Your task to perform on an android device: What's the weather going to be tomorrow? Image 0: 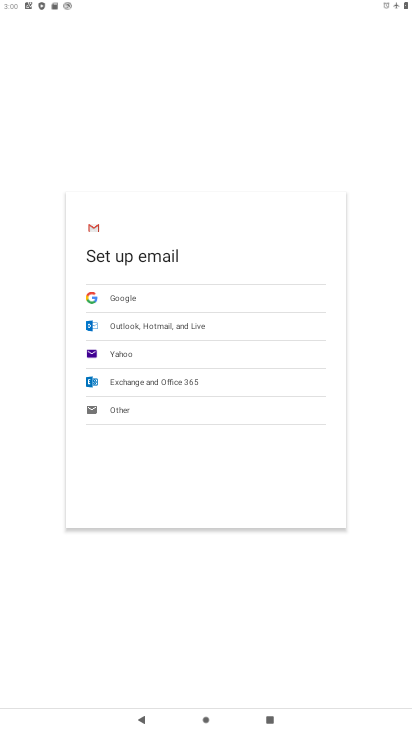
Step 0: press home button
Your task to perform on an android device: What's the weather going to be tomorrow? Image 1: 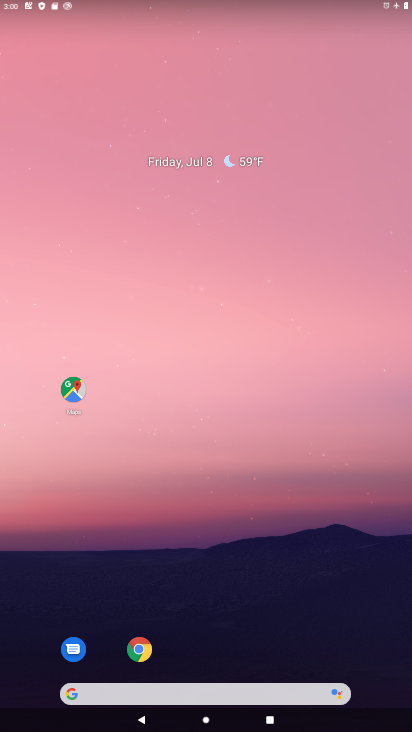
Step 1: drag from (313, 627) to (297, 575)
Your task to perform on an android device: What's the weather going to be tomorrow? Image 2: 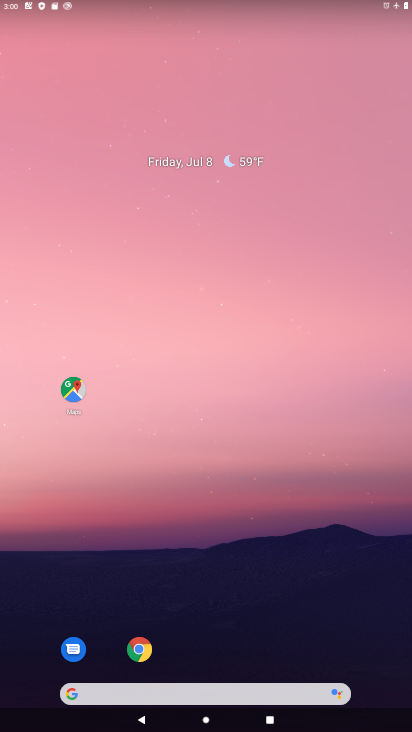
Step 2: click (249, 157)
Your task to perform on an android device: What's the weather going to be tomorrow? Image 3: 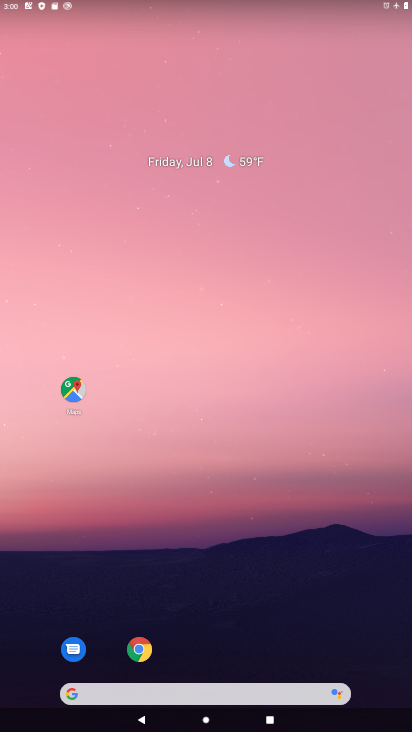
Step 3: click (249, 161)
Your task to perform on an android device: What's the weather going to be tomorrow? Image 4: 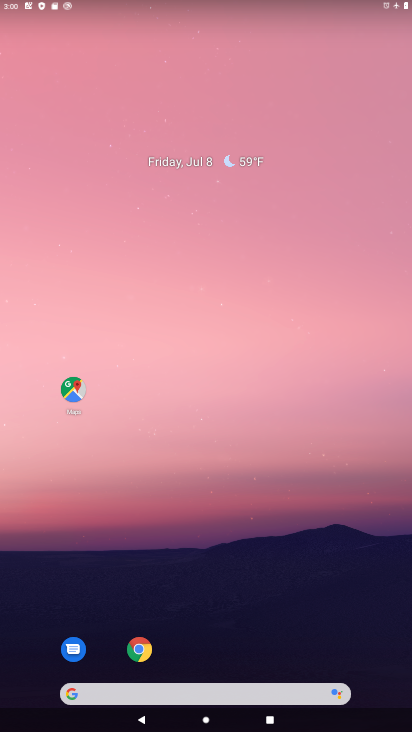
Step 4: click (261, 161)
Your task to perform on an android device: What's the weather going to be tomorrow? Image 5: 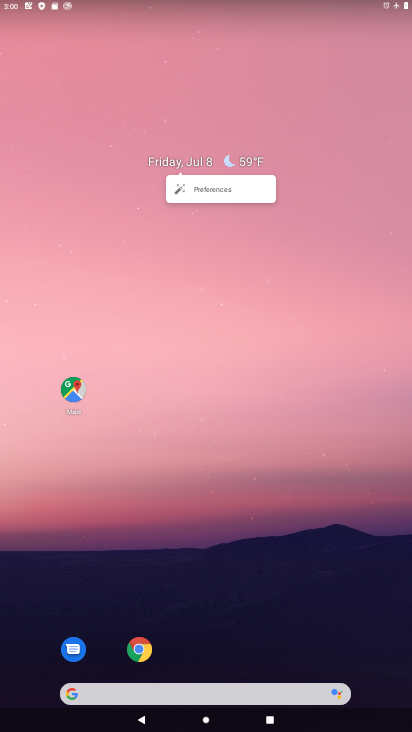
Step 5: drag from (326, 564) to (345, 149)
Your task to perform on an android device: What's the weather going to be tomorrow? Image 6: 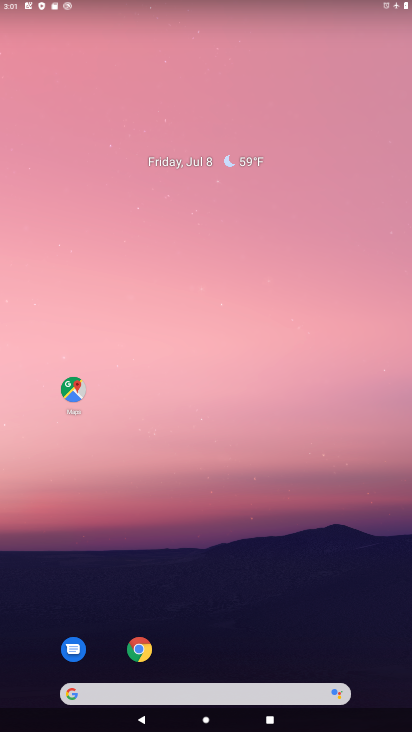
Step 6: drag from (276, 637) to (199, 125)
Your task to perform on an android device: What's the weather going to be tomorrow? Image 7: 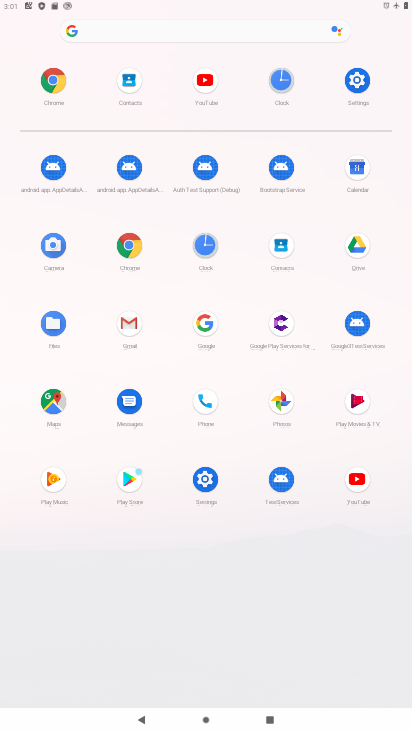
Step 7: click (131, 242)
Your task to perform on an android device: What's the weather going to be tomorrow? Image 8: 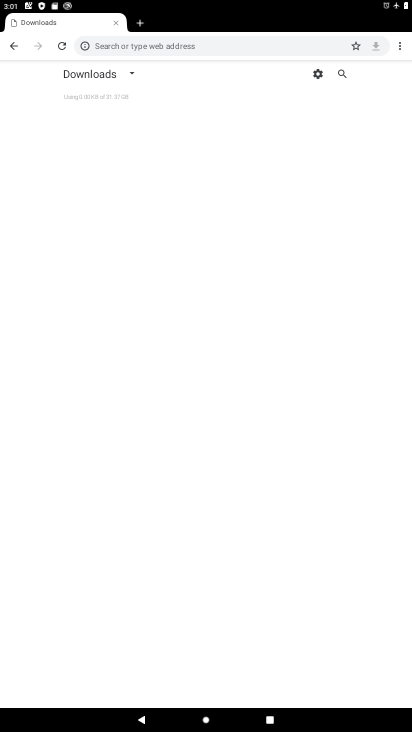
Step 8: click (112, 46)
Your task to perform on an android device: What's the weather going to be tomorrow? Image 9: 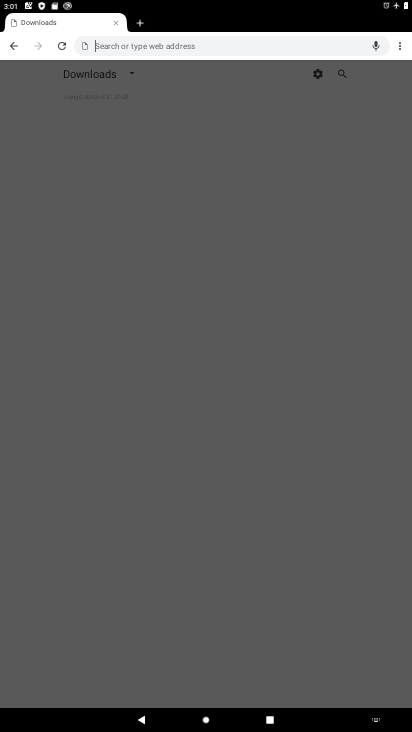
Step 9: type "weather"
Your task to perform on an android device: What's the weather going to be tomorrow? Image 10: 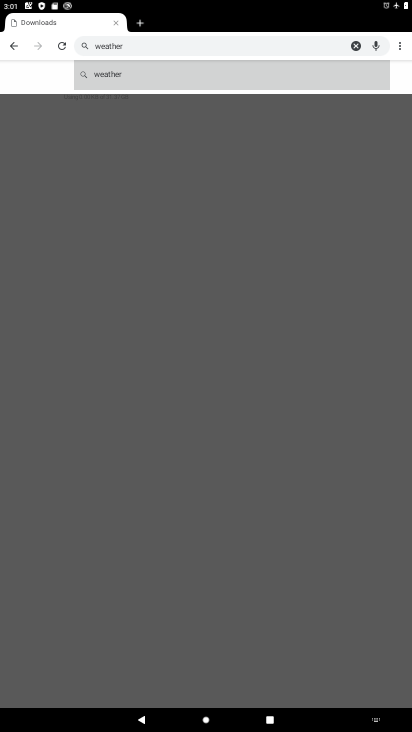
Step 10: click (189, 78)
Your task to perform on an android device: What's the weather going to be tomorrow? Image 11: 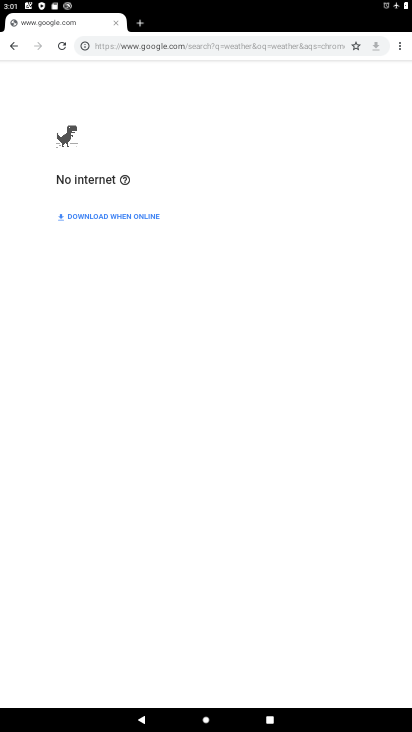
Step 11: task complete